Your task to perform on an android device: toggle wifi Image 0: 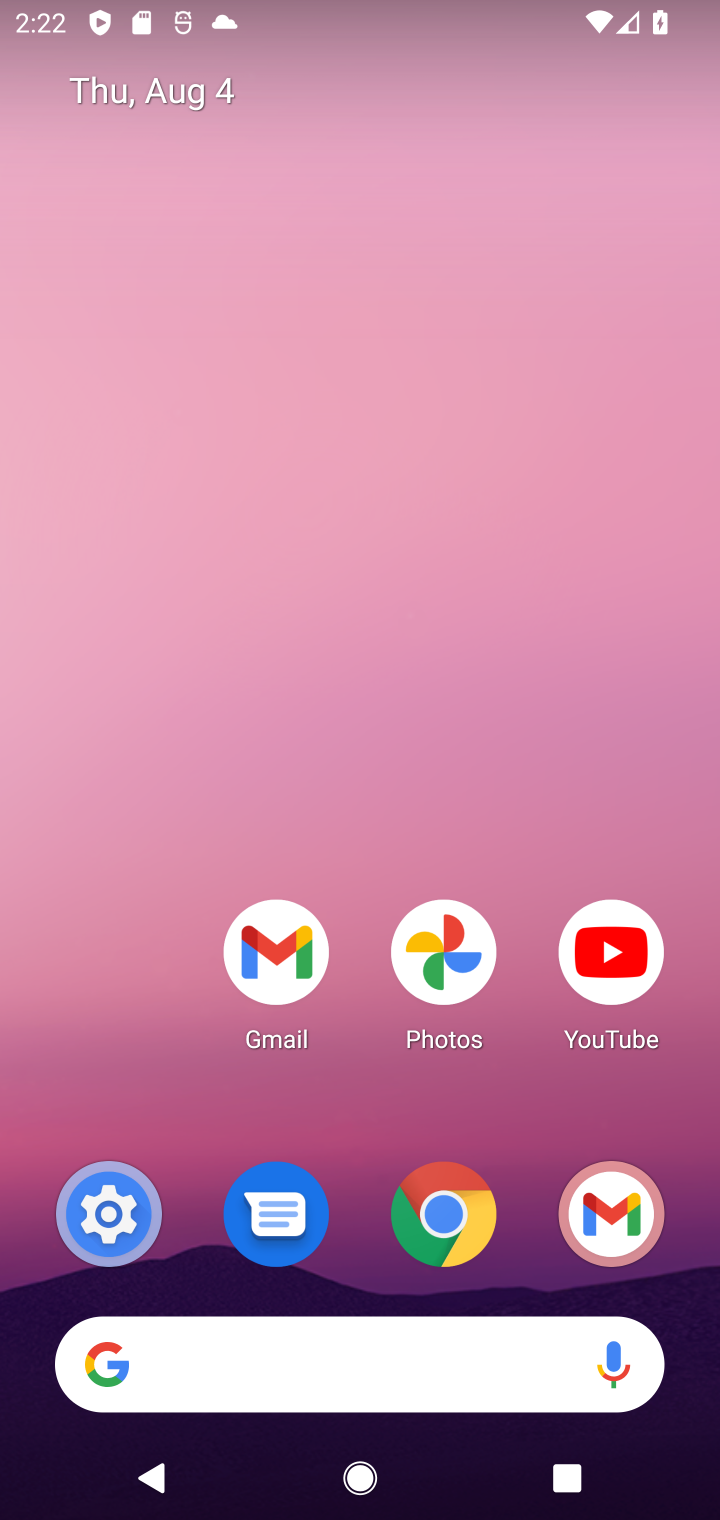
Step 0: drag from (172, 715) to (221, 59)
Your task to perform on an android device: toggle wifi Image 1: 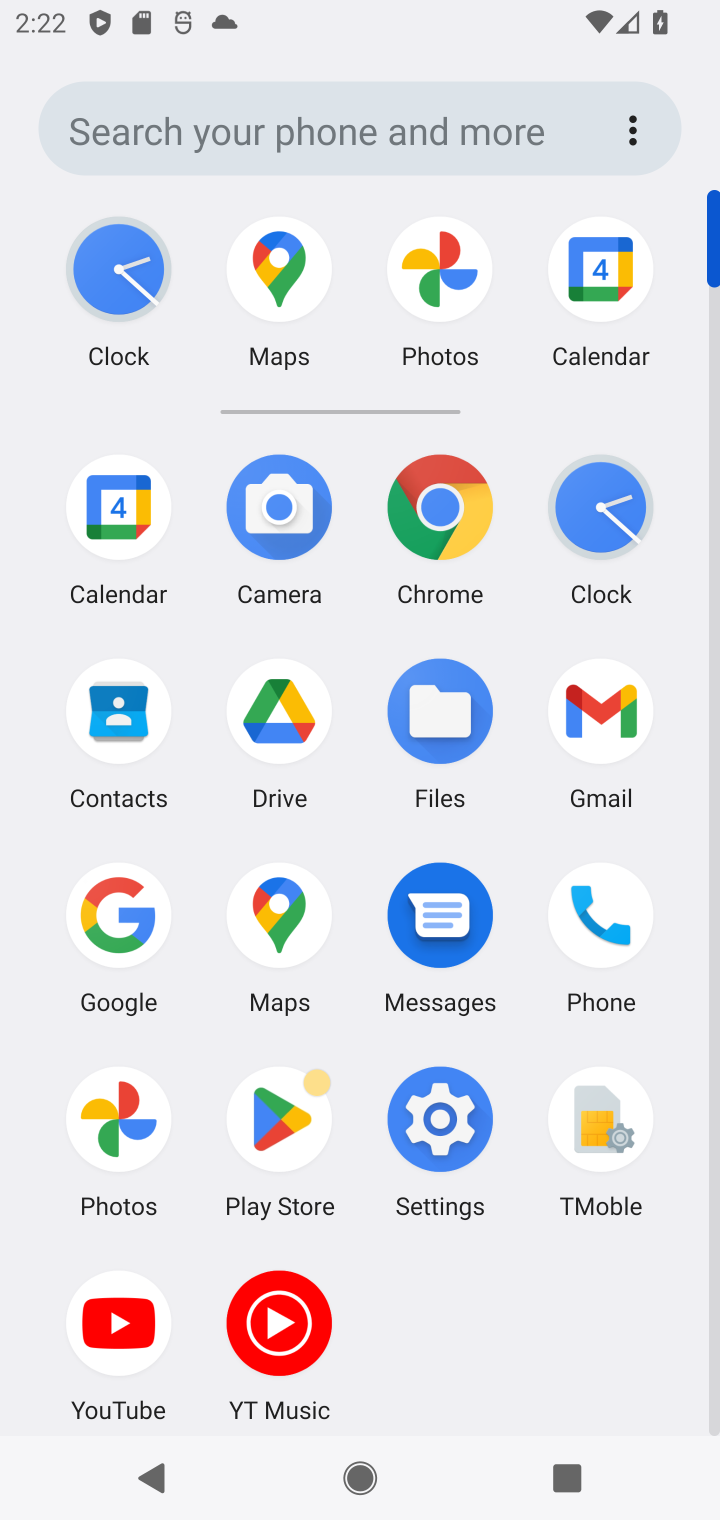
Step 1: click (442, 1125)
Your task to perform on an android device: toggle wifi Image 2: 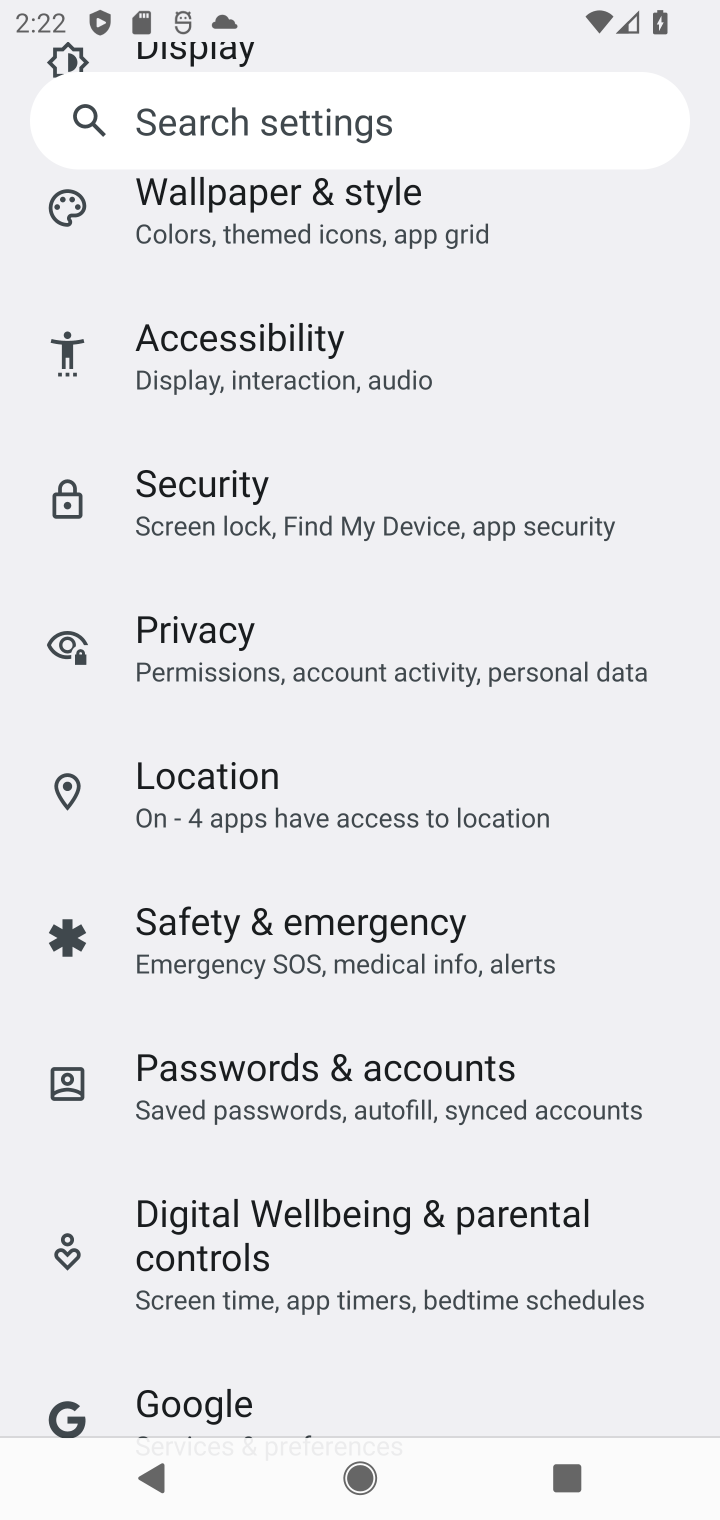
Step 2: drag from (363, 367) to (339, 1245)
Your task to perform on an android device: toggle wifi Image 3: 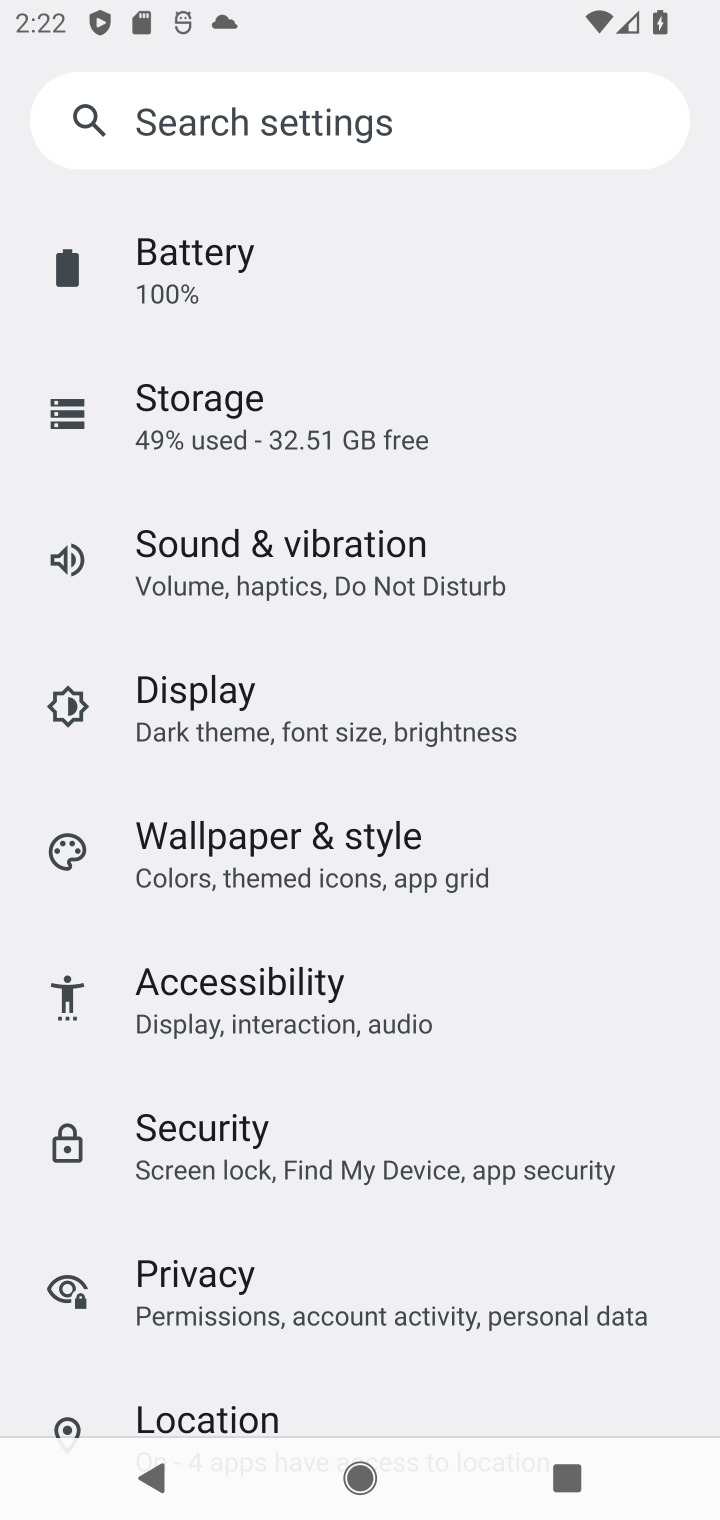
Step 3: drag from (311, 227) to (260, 1446)
Your task to perform on an android device: toggle wifi Image 4: 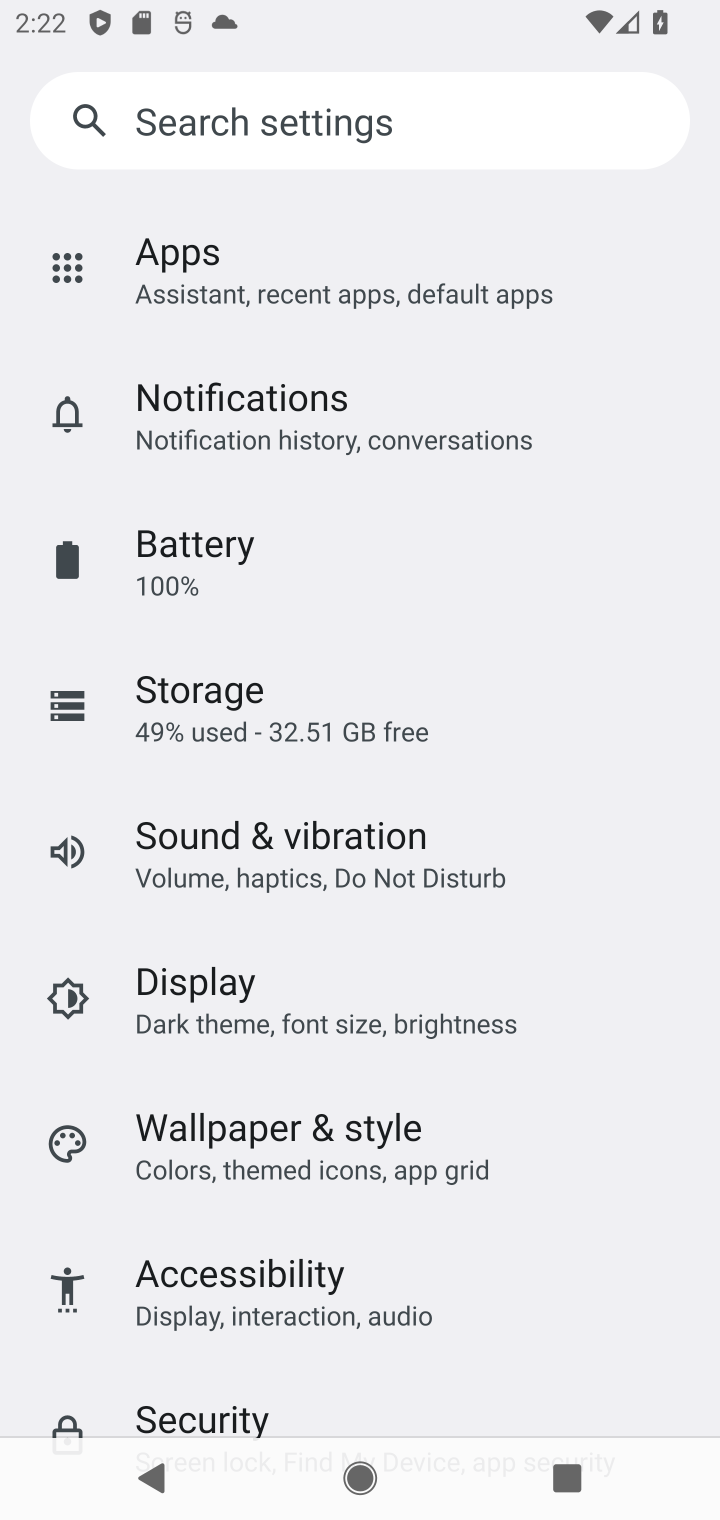
Step 4: drag from (387, 750) to (406, 1449)
Your task to perform on an android device: toggle wifi Image 5: 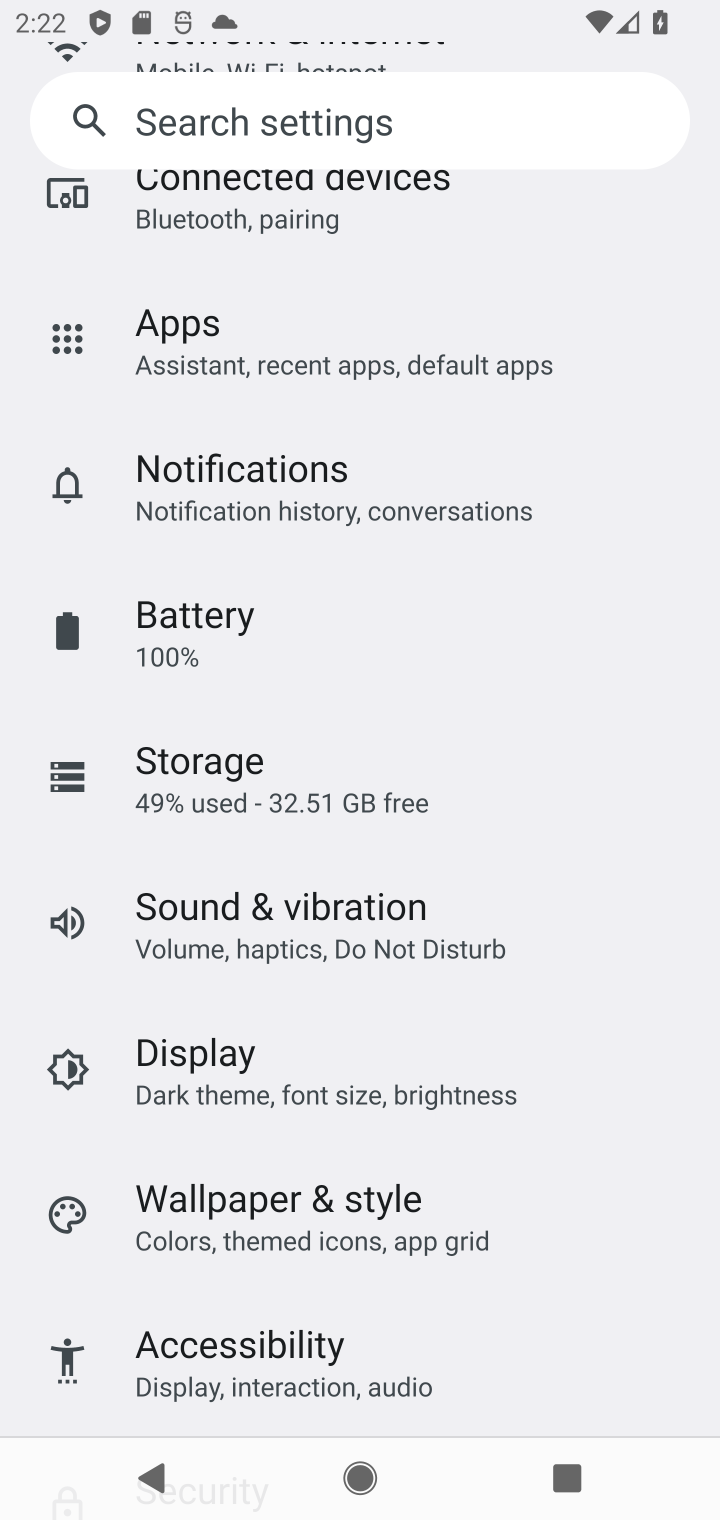
Step 5: drag from (216, 337) to (356, 1317)
Your task to perform on an android device: toggle wifi Image 6: 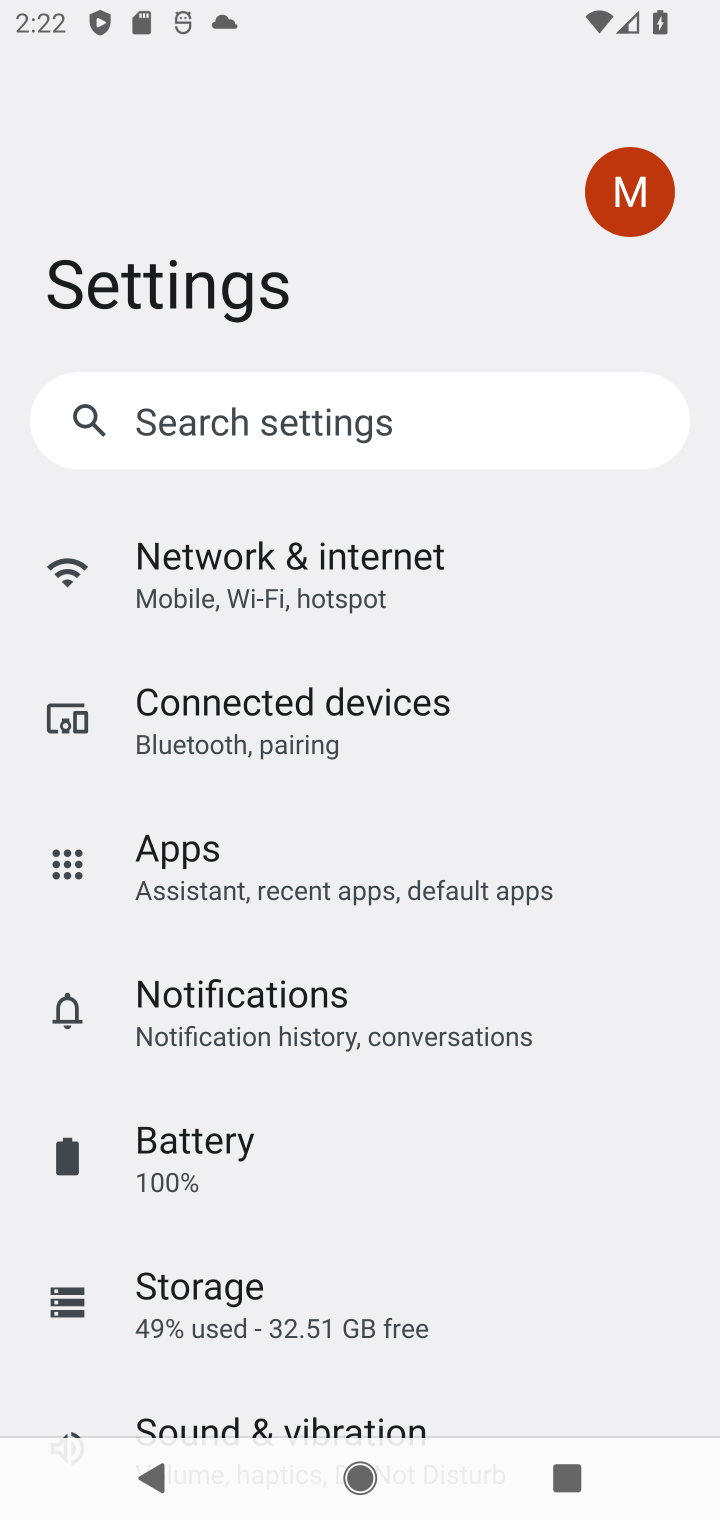
Step 6: click (244, 589)
Your task to perform on an android device: toggle wifi Image 7: 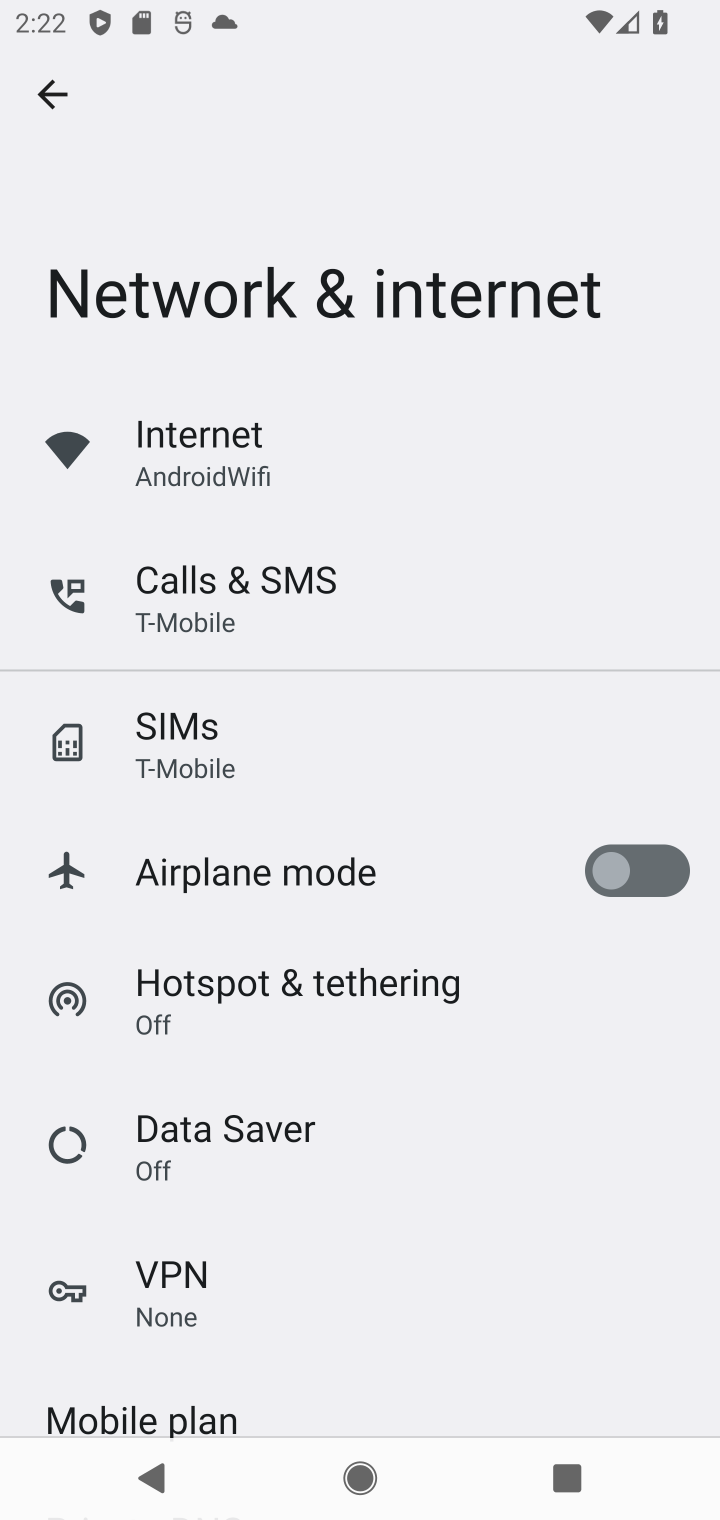
Step 7: click (382, 462)
Your task to perform on an android device: toggle wifi Image 8: 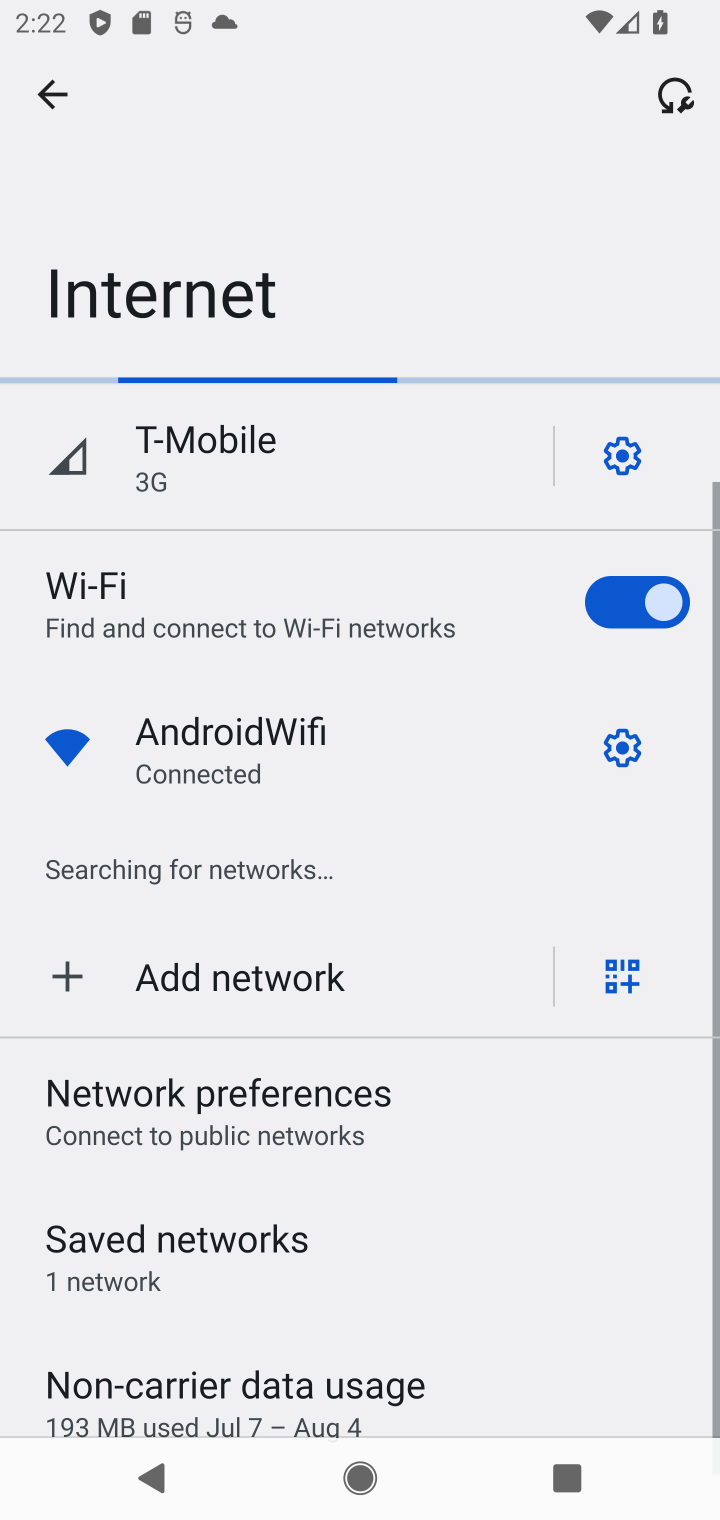
Step 8: click (600, 594)
Your task to perform on an android device: toggle wifi Image 9: 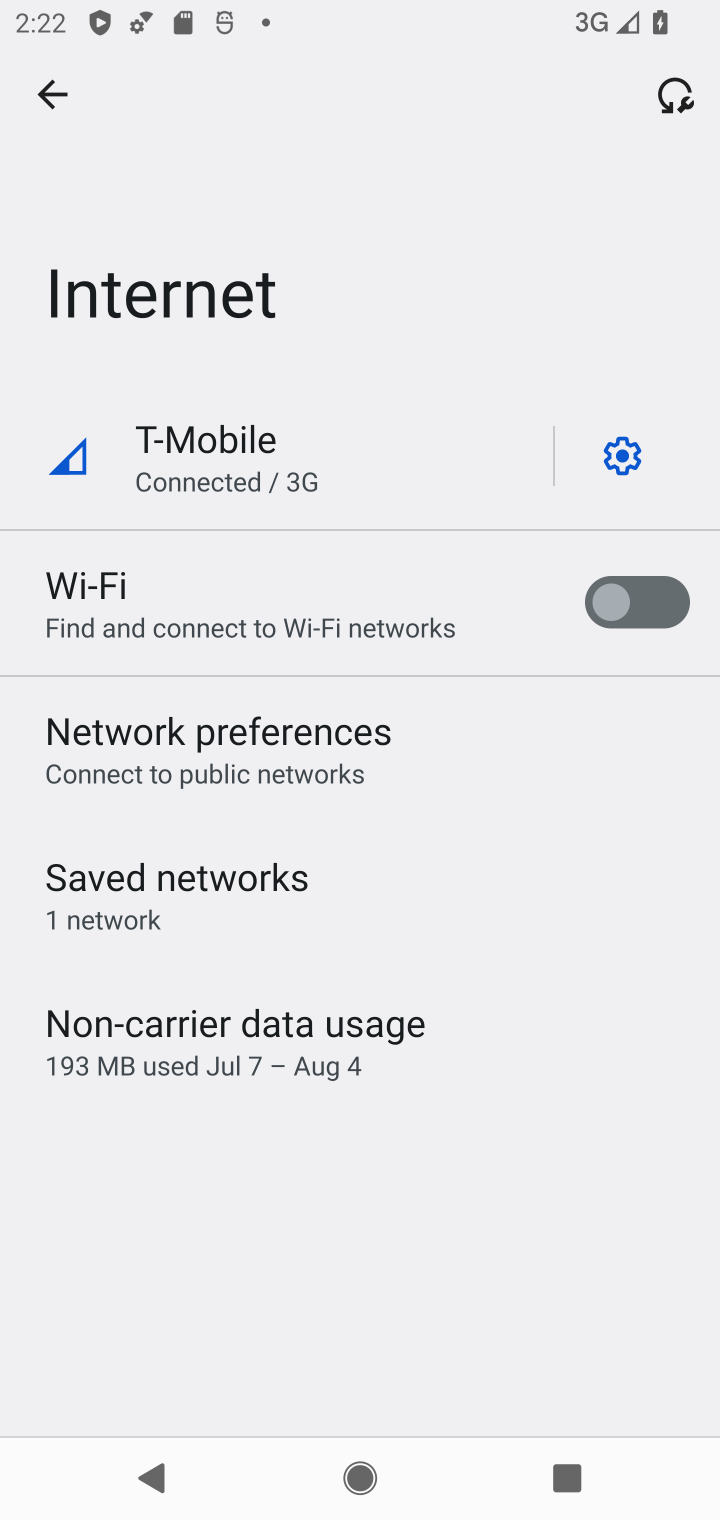
Step 9: task complete